Your task to perform on an android device: manage bookmarks in the chrome app Image 0: 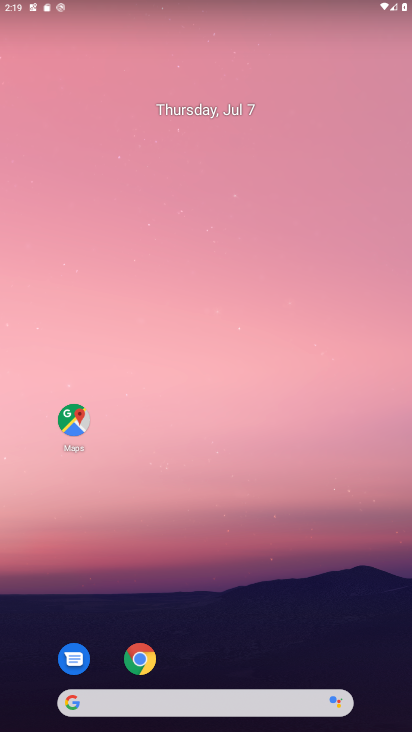
Step 0: drag from (196, 660) to (300, 86)
Your task to perform on an android device: manage bookmarks in the chrome app Image 1: 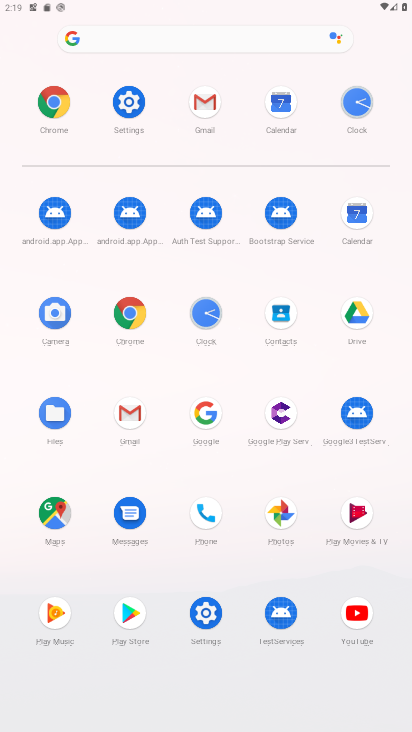
Step 1: click (123, 313)
Your task to perform on an android device: manage bookmarks in the chrome app Image 2: 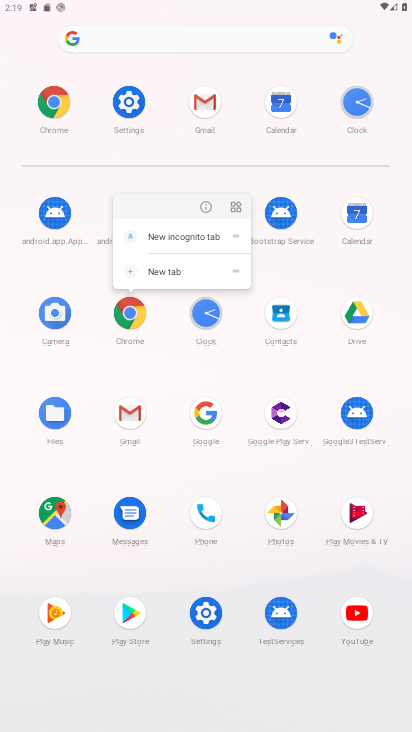
Step 2: click (199, 202)
Your task to perform on an android device: manage bookmarks in the chrome app Image 3: 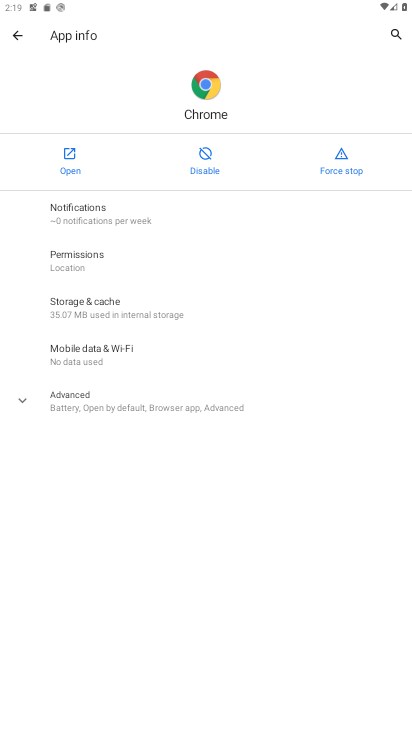
Step 3: click (68, 151)
Your task to perform on an android device: manage bookmarks in the chrome app Image 4: 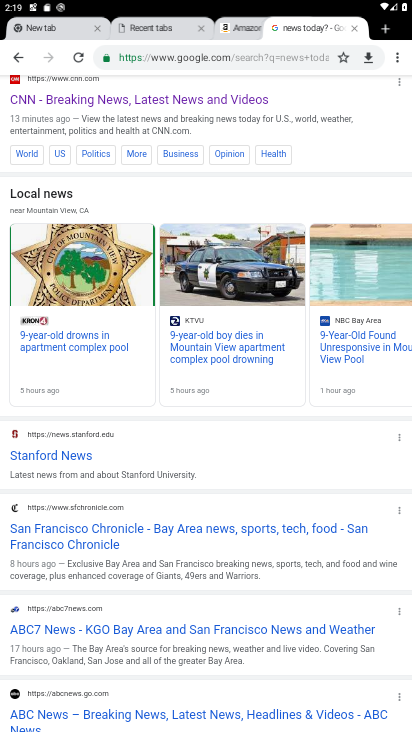
Step 4: click (397, 59)
Your task to perform on an android device: manage bookmarks in the chrome app Image 5: 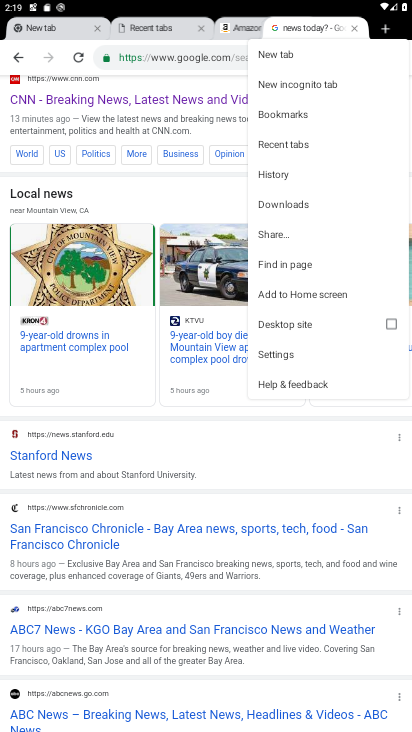
Step 5: click (279, 103)
Your task to perform on an android device: manage bookmarks in the chrome app Image 6: 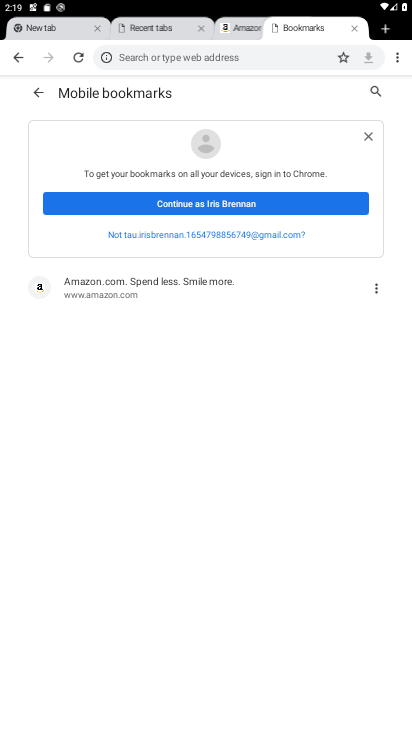
Step 6: task complete